Your task to perform on an android device: uninstall "Google Photos" Image 0: 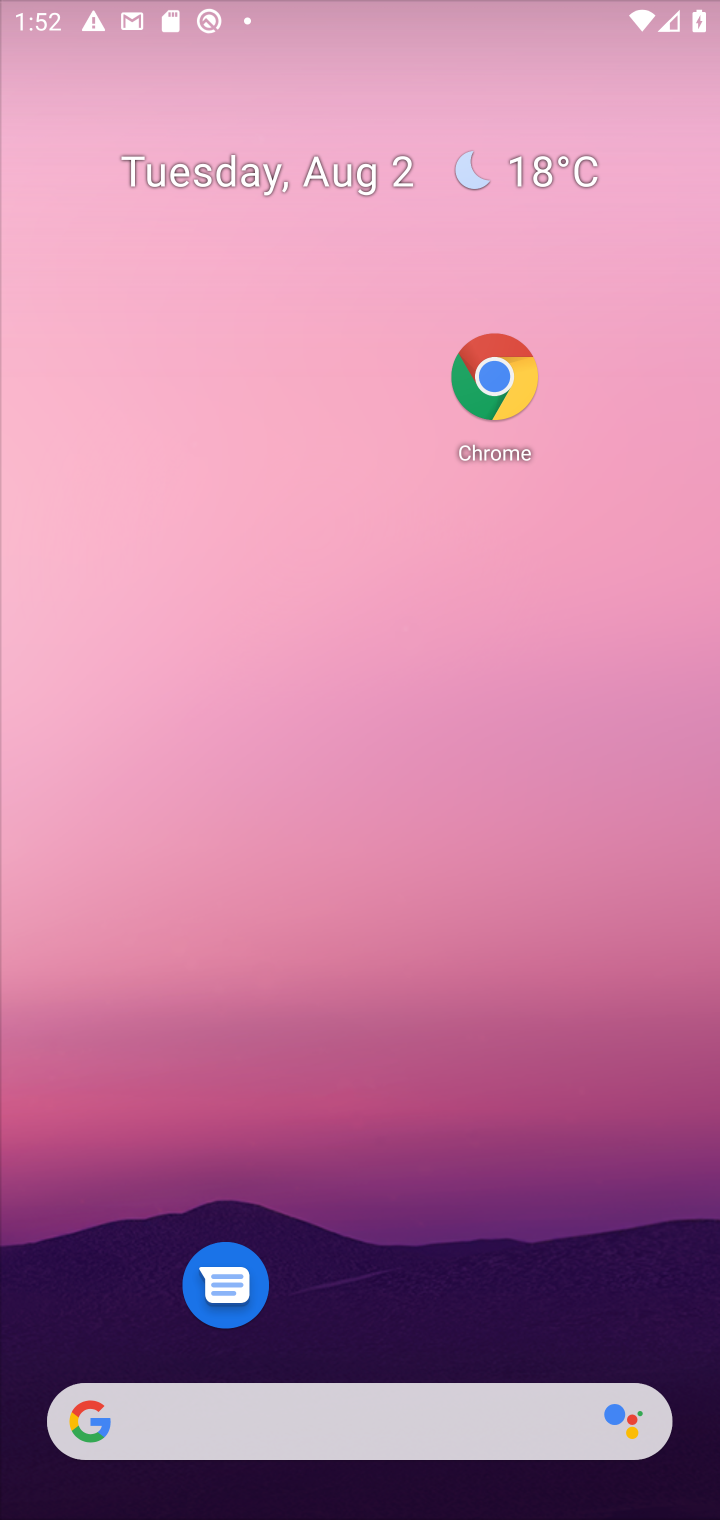
Step 0: press home button
Your task to perform on an android device: uninstall "Google Photos" Image 1: 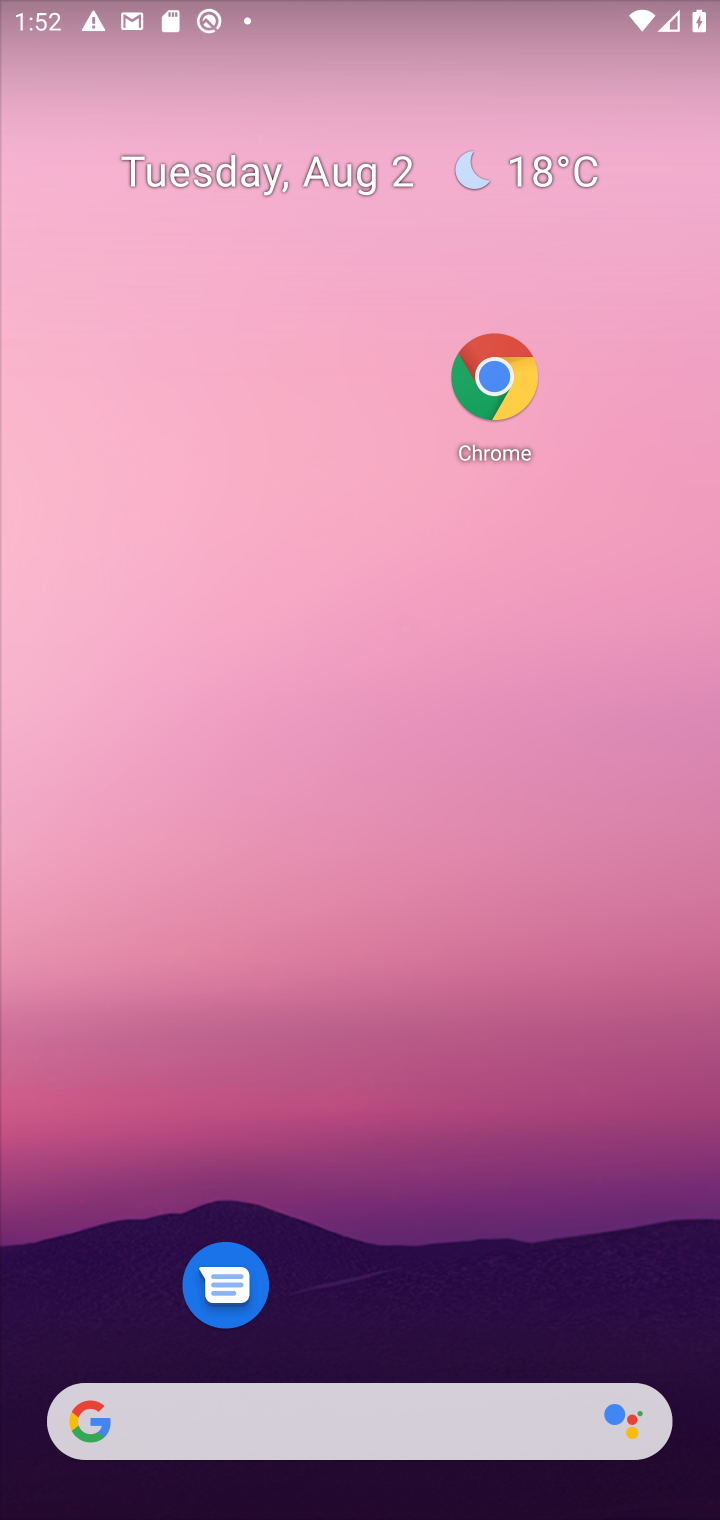
Step 1: press home button
Your task to perform on an android device: uninstall "Google Photos" Image 2: 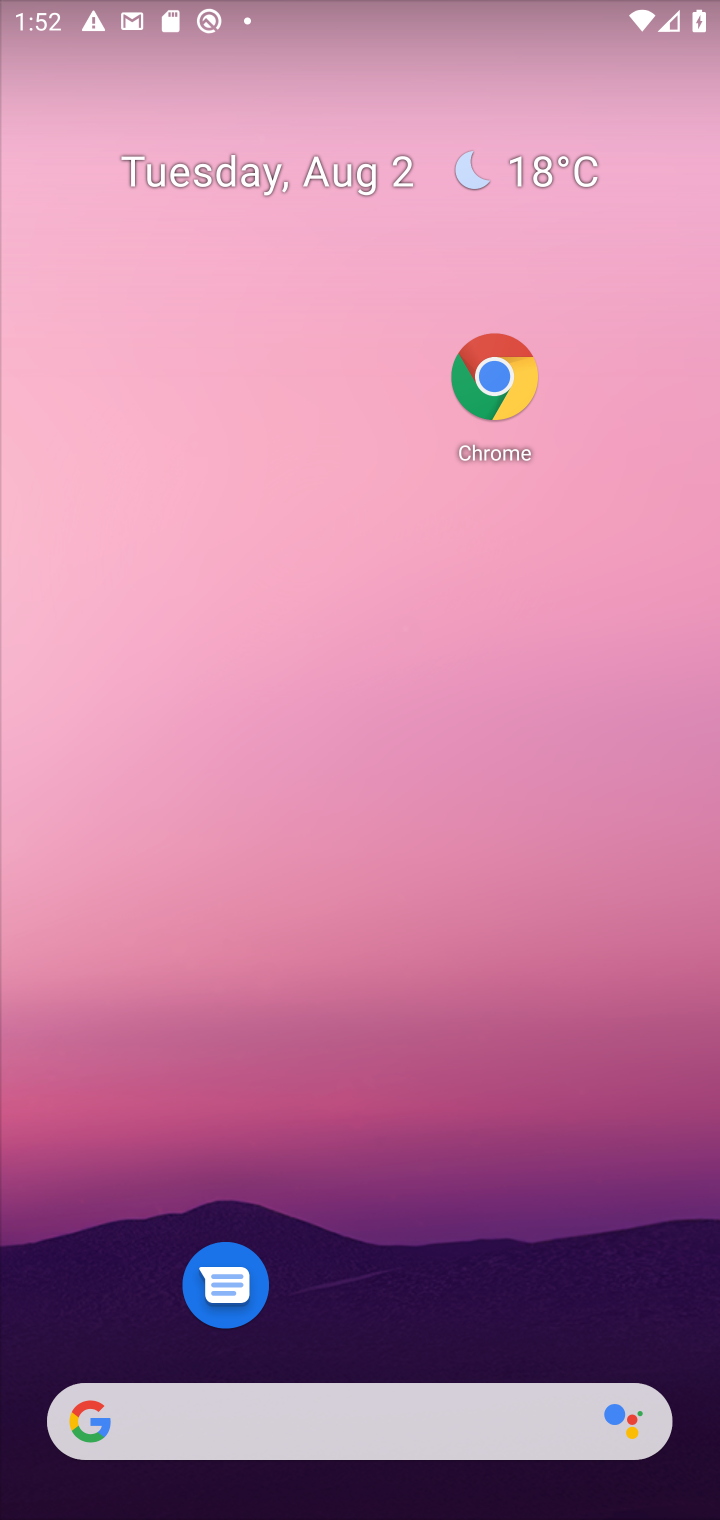
Step 2: drag from (499, 1233) to (469, 270)
Your task to perform on an android device: uninstall "Google Photos" Image 3: 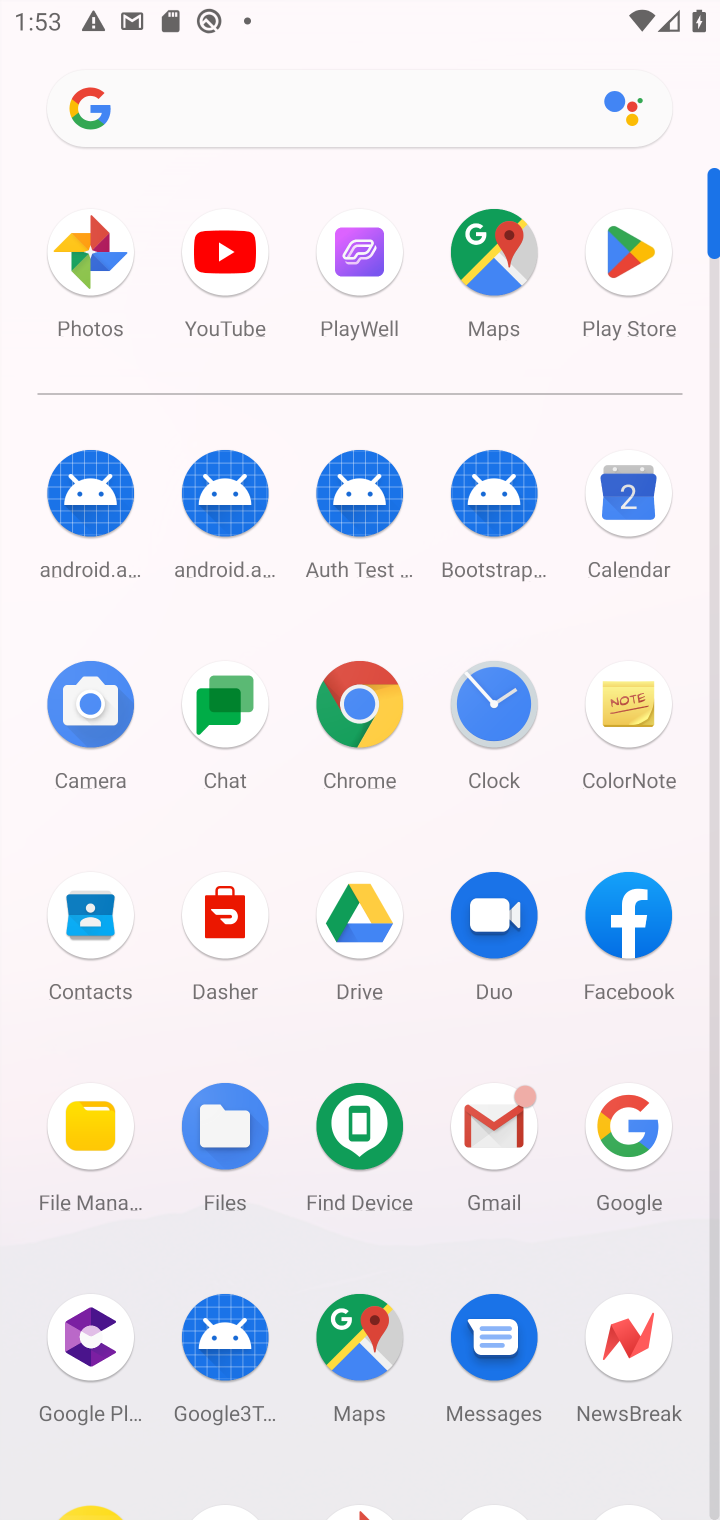
Step 3: click (645, 275)
Your task to perform on an android device: uninstall "Google Photos" Image 4: 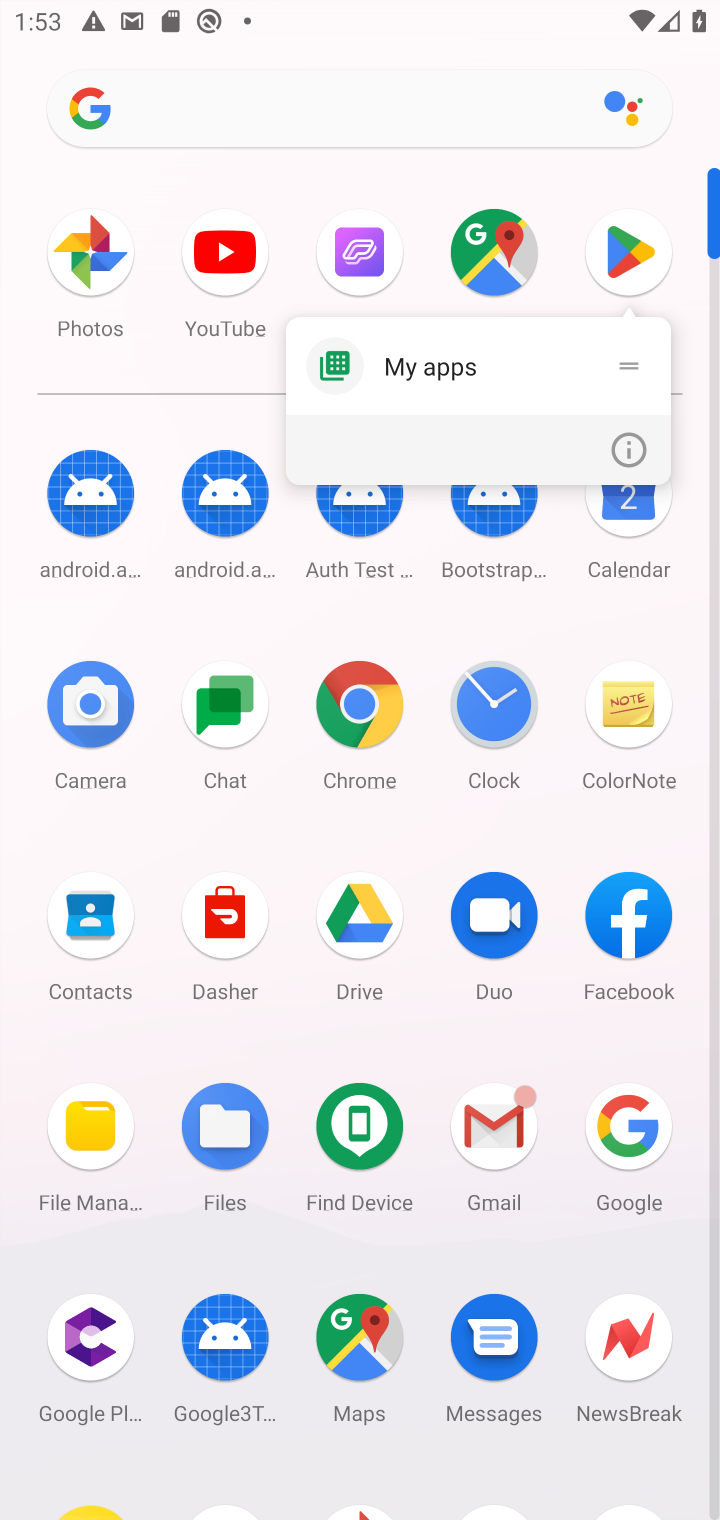
Step 4: click (645, 275)
Your task to perform on an android device: uninstall "Google Photos" Image 5: 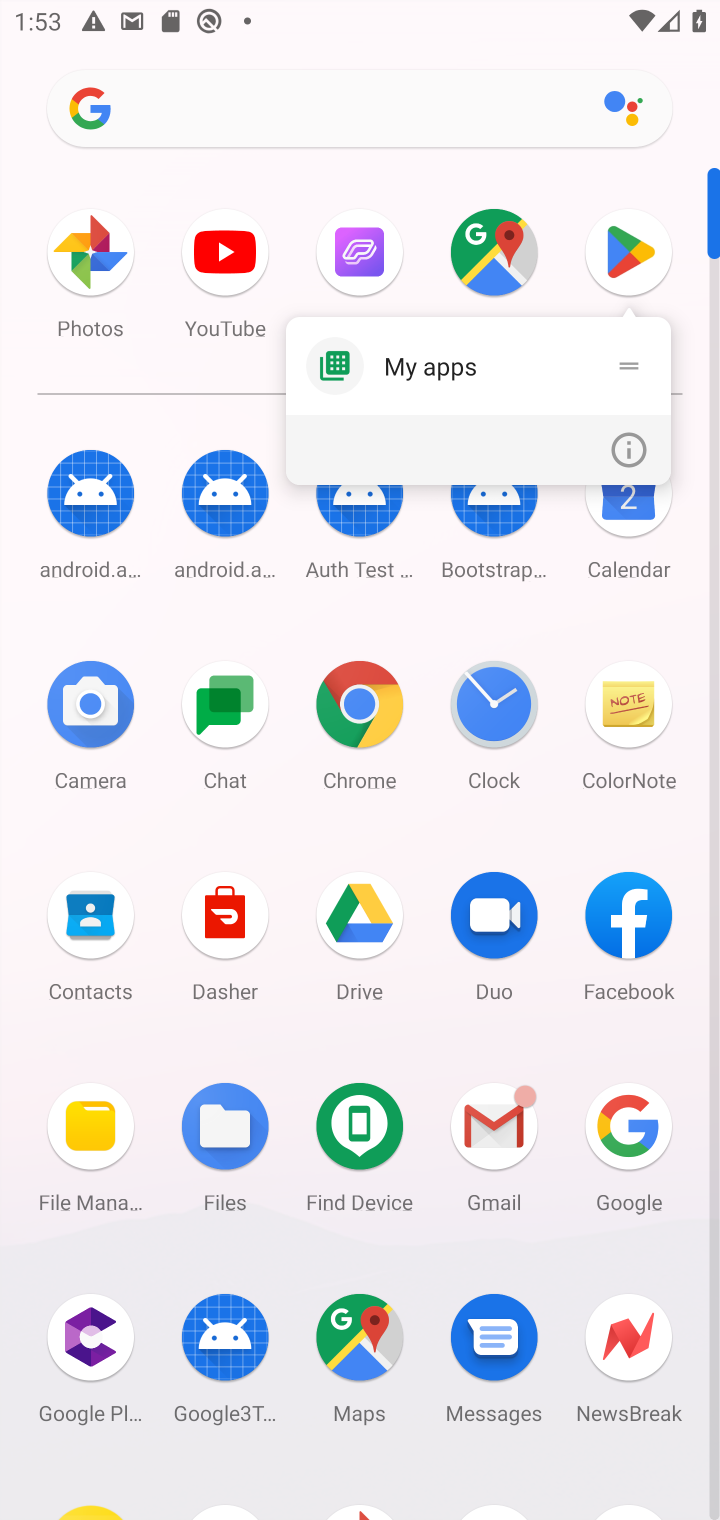
Step 5: click (634, 246)
Your task to perform on an android device: uninstall "Google Photos" Image 6: 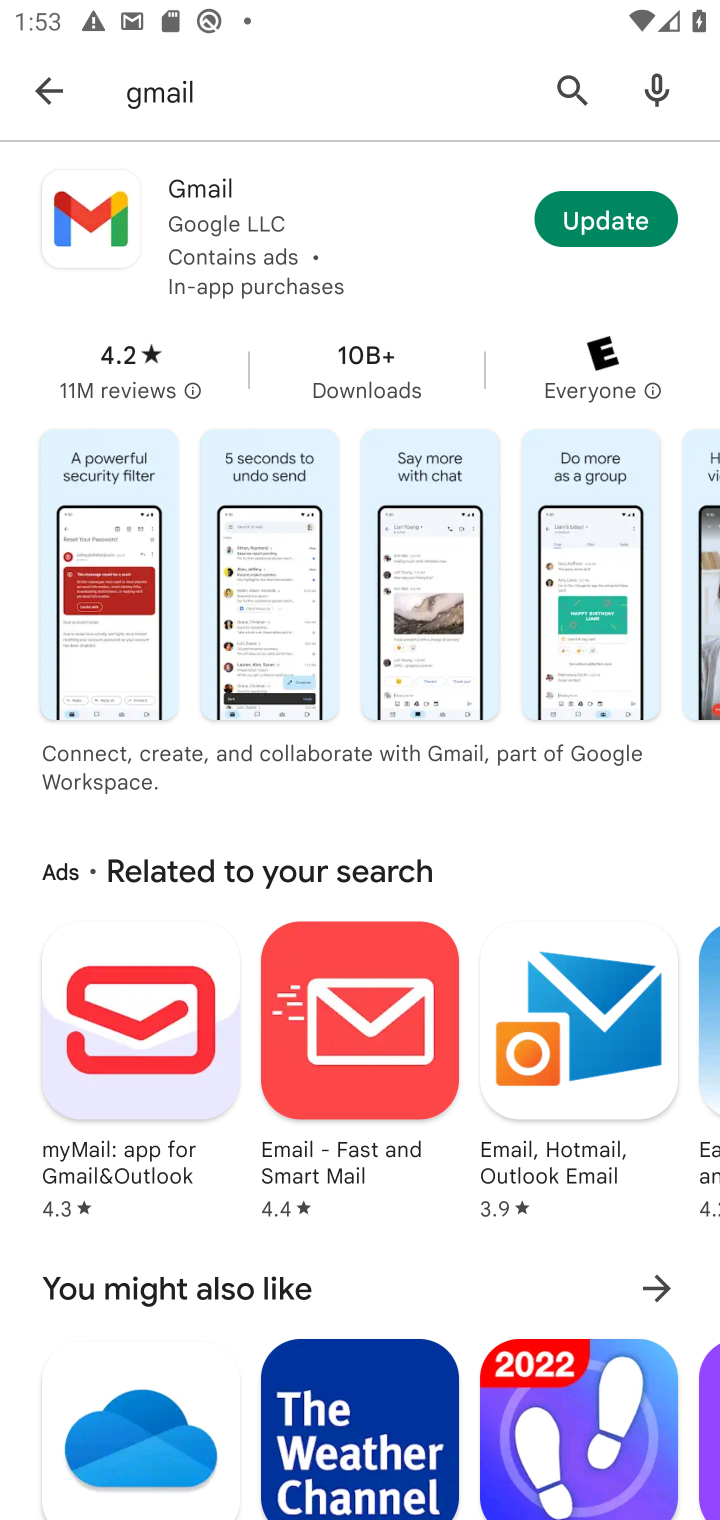
Step 6: click (567, 79)
Your task to perform on an android device: uninstall "Google Photos" Image 7: 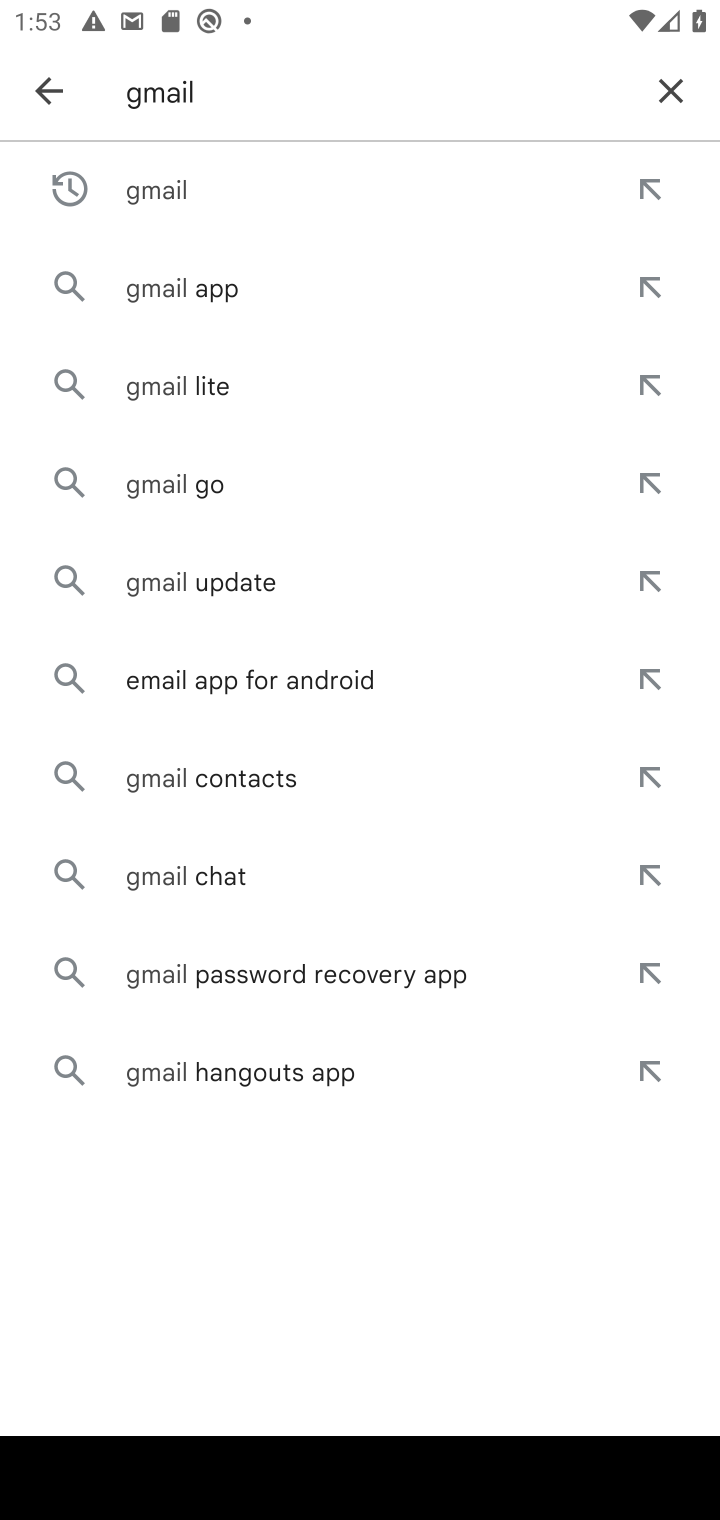
Step 7: click (675, 79)
Your task to perform on an android device: uninstall "Google Photos" Image 8: 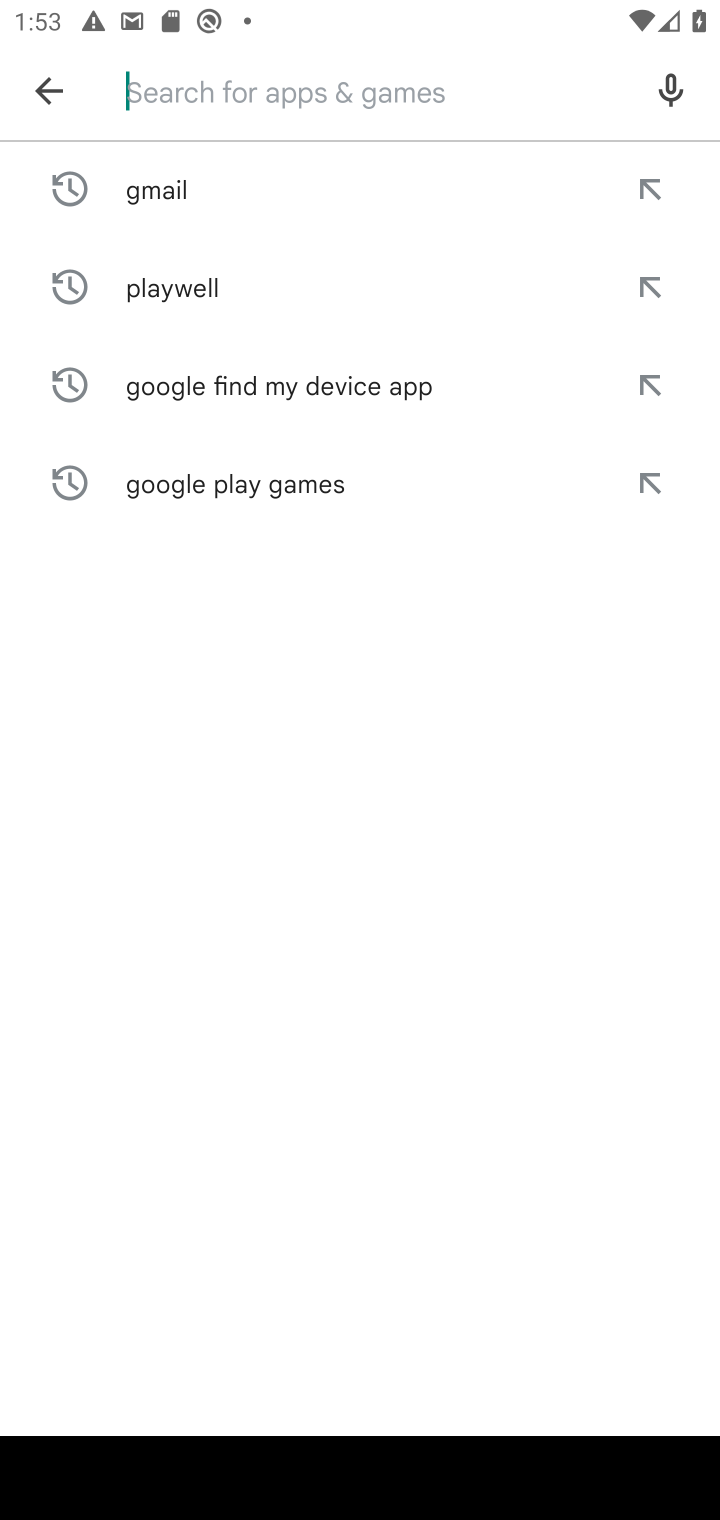
Step 8: type "Google Photos"
Your task to perform on an android device: uninstall "Google Photos" Image 9: 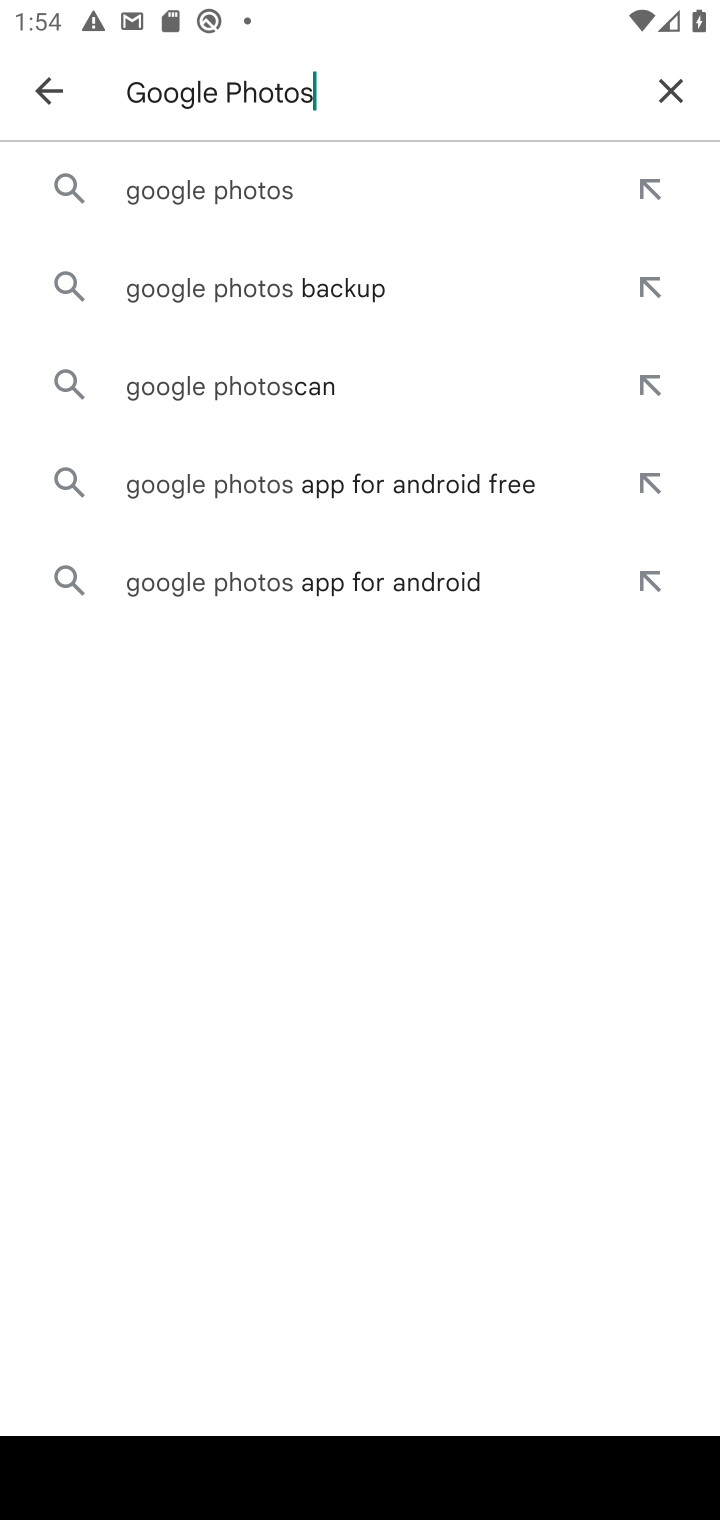
Step 9: click (260, 204)
Your task to perform on an android device: uninstall "Google Photos" Image 10: 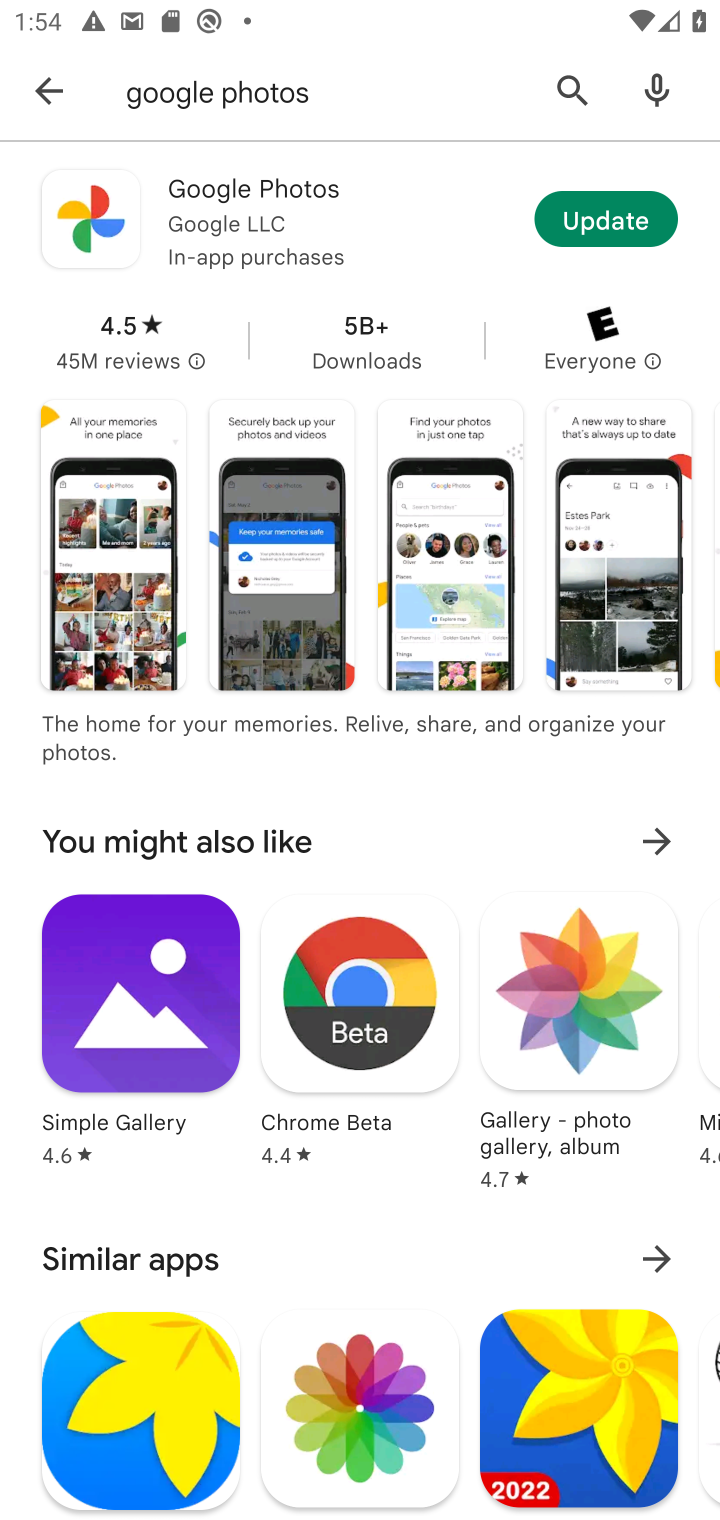
Step 10: task complete